Your task to perform on an android device: add a label to a message in the gmail app Image 0: 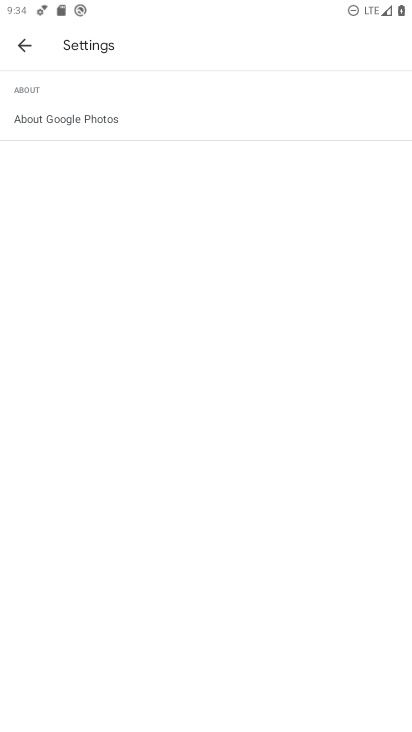
Step 0: click (353, 422)
Your task to perform on an android device: add a label to a message in the gmail app Image 1: 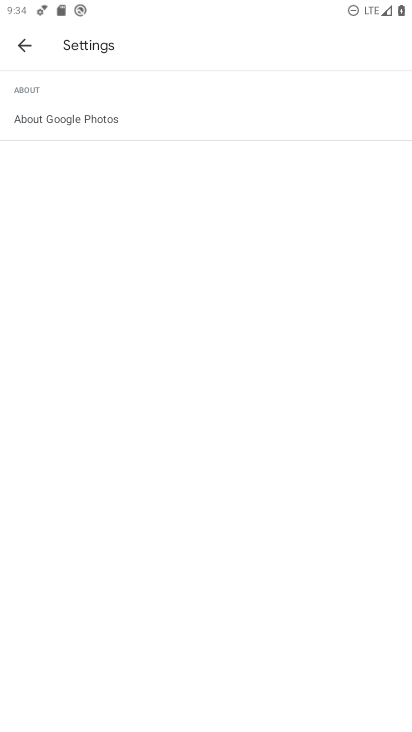
Step 1: click (17, 65)
Your task to perform on an android device: add a label to a message in the gmail app Image 2: 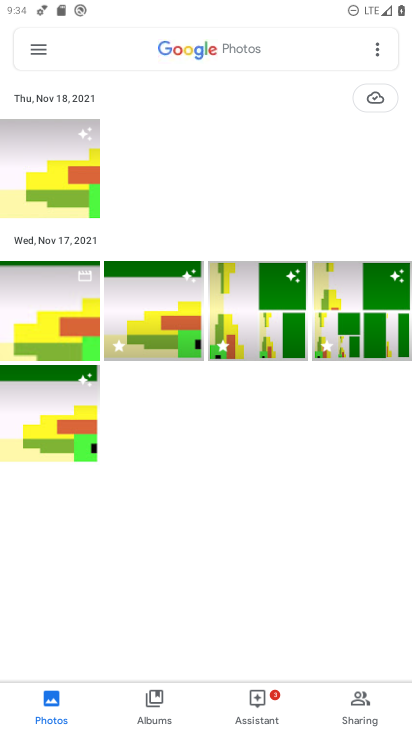
Step 2: press home button
Your task to perform on an android device: add a label to a message in the gmail app Image 3: 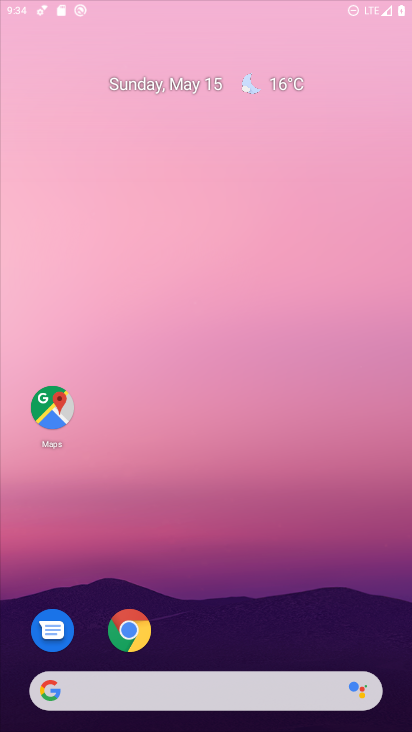
Step 3: drag from (209, 619) to (214, 0)
Your task to perform on an android device: add a label to a message in the gmail app Image 4: 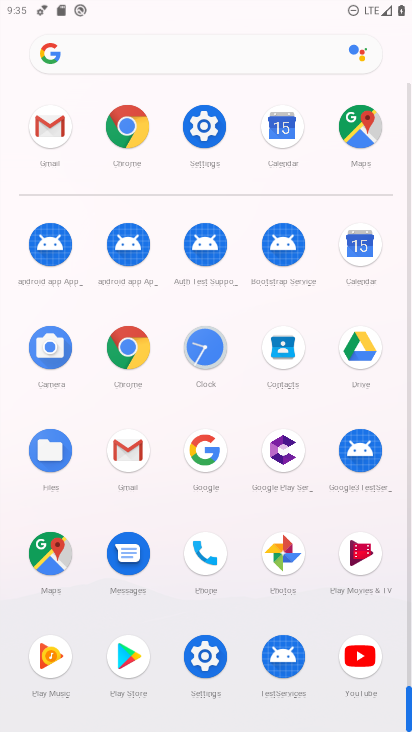
Step 4: click (137, 447)
Your task to perform on an android device: add a label to a message in the gmail app Image 5: 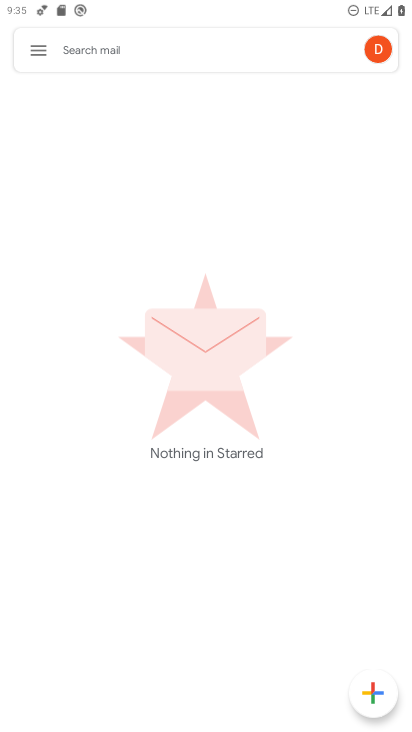
Step 5: drag from (217, 571) to (231, 321)
Your task to perform on an android device: add a label to a message in the gmail app Image 6: 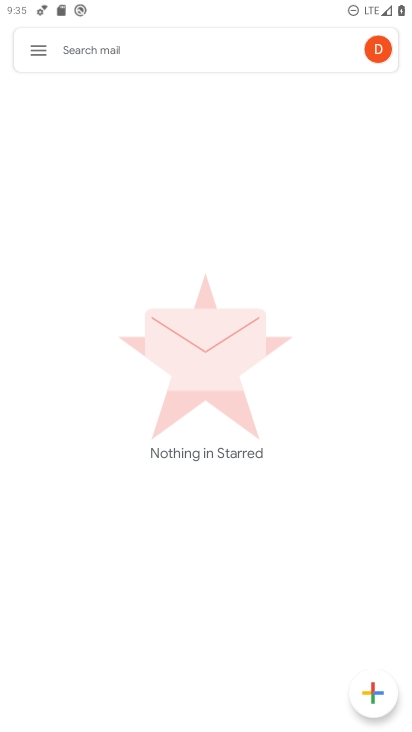
Step 6: click (41, 41)
Your task to perform on an android device: add a label to a message in the gmail app Image 7: 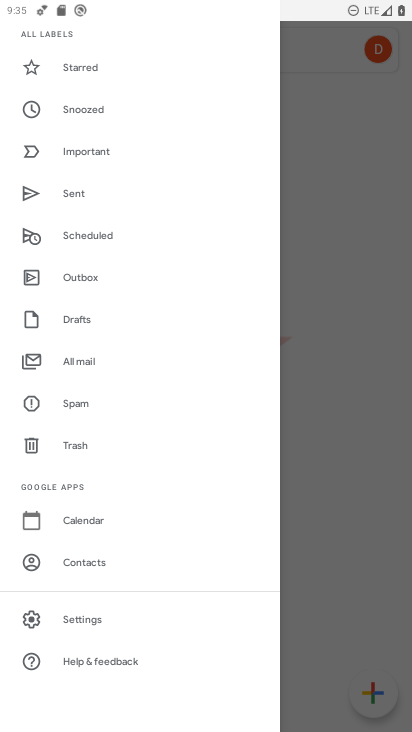
Step 7: drag from (117, 143) to (124, 725)
Your task to perform on an android device: add a label to a message in the gmail app Image 8: 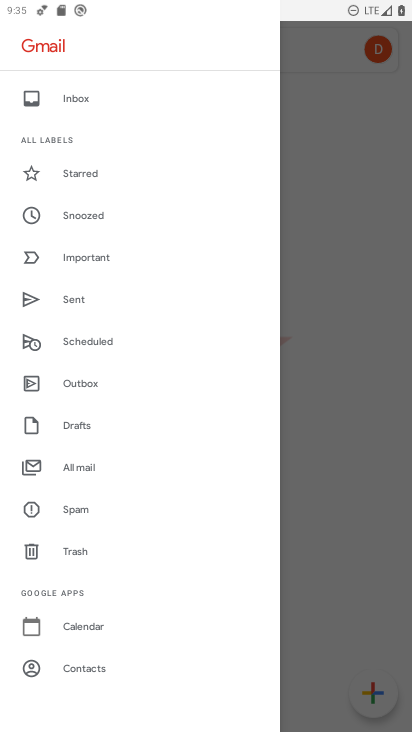
Step 8: drag from (115, 682) to (108, 191)
Your task to perform on an android device: add a label to a message in the gmail app Image 9: 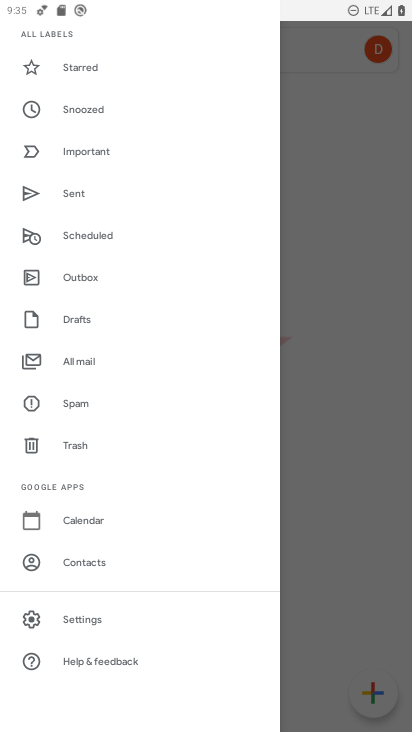
Step 9: click (124, 622)
Your task to perform on an android device: add a label to a message in the gmail app Image 10: 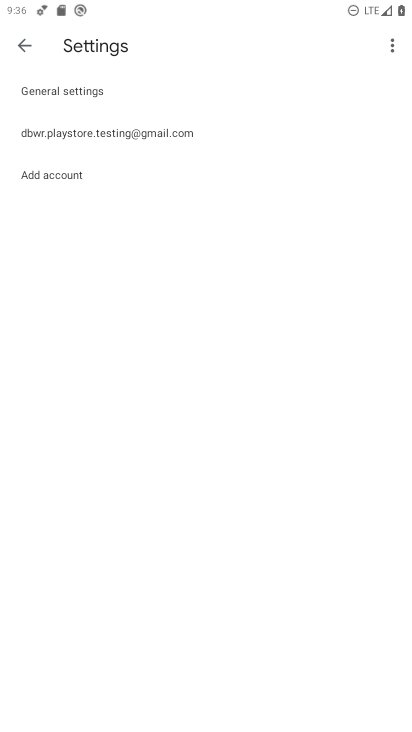
Step 10: click (31, 51)
Your task to perform on an android device: add a label to a message in the gmail app Image 11: 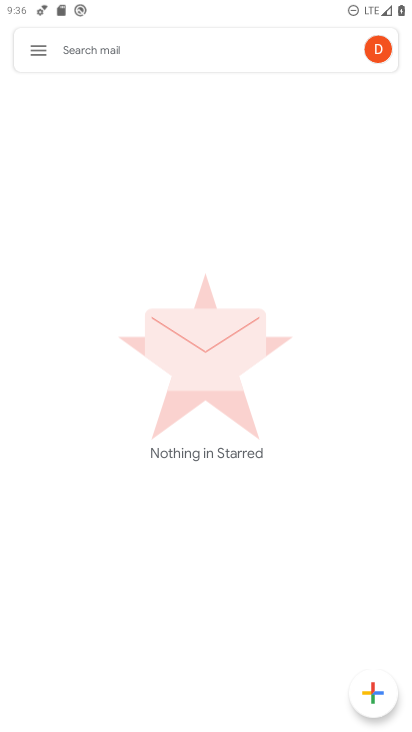
Step 11: task complete